Your task to perform on an android device: move an email to a new category in the gmail app Image 0: 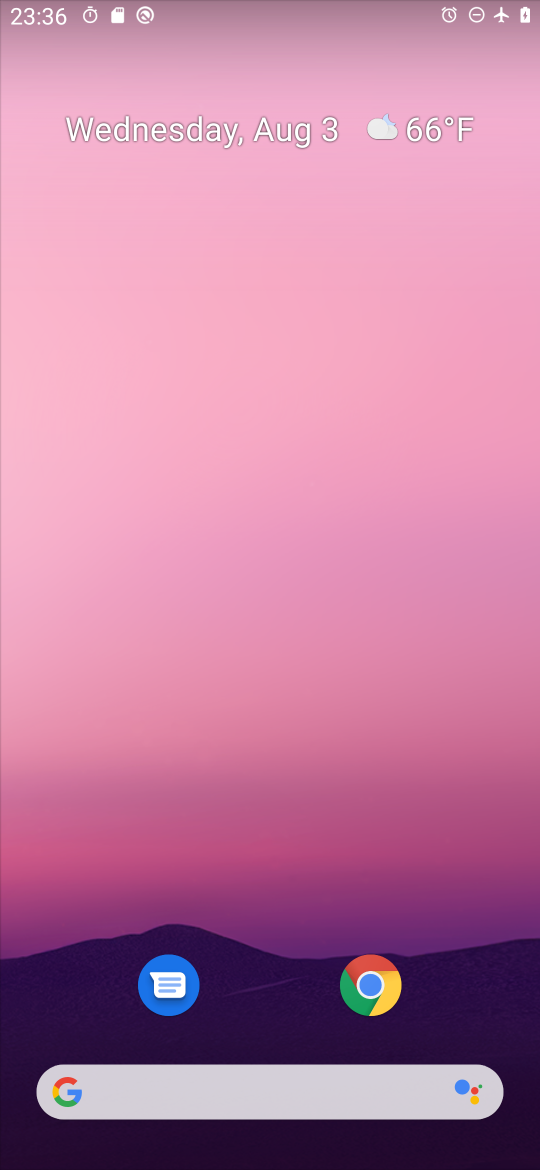
Step 0: drag from (292, 890) to (239, 206)
Your task to perform on an android device: move an email to a new category in the gmail app Image 1: 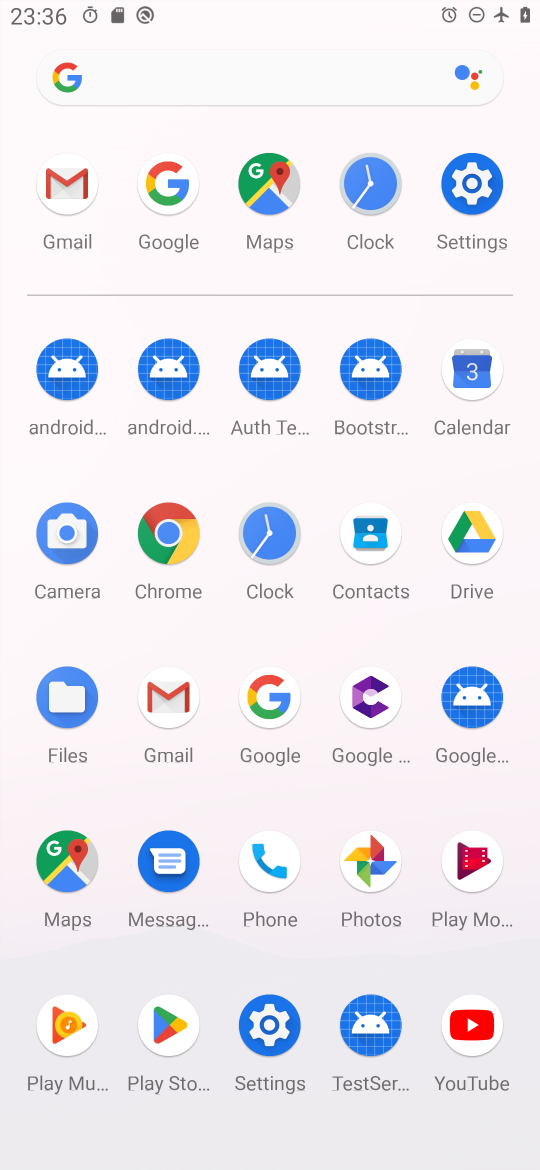
Step 1: click (80, 213)
Your task to perform on an android device: move an email to a new category in the gmail app Image 2: 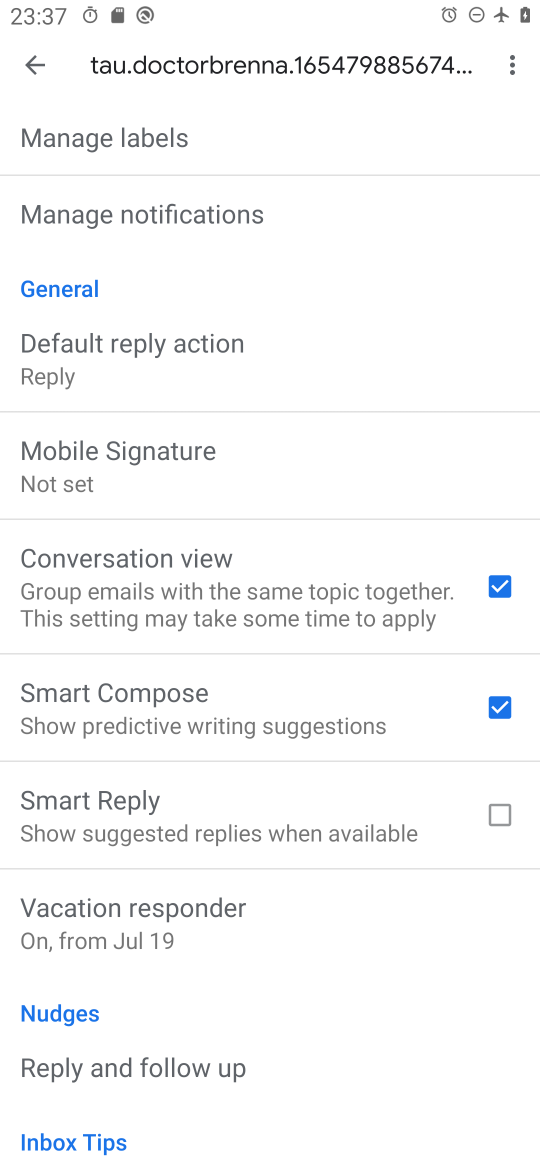
Step 2: click (23, 45)
Your task to perform on an android device: move an email to a new category in the gmail app Image 3: 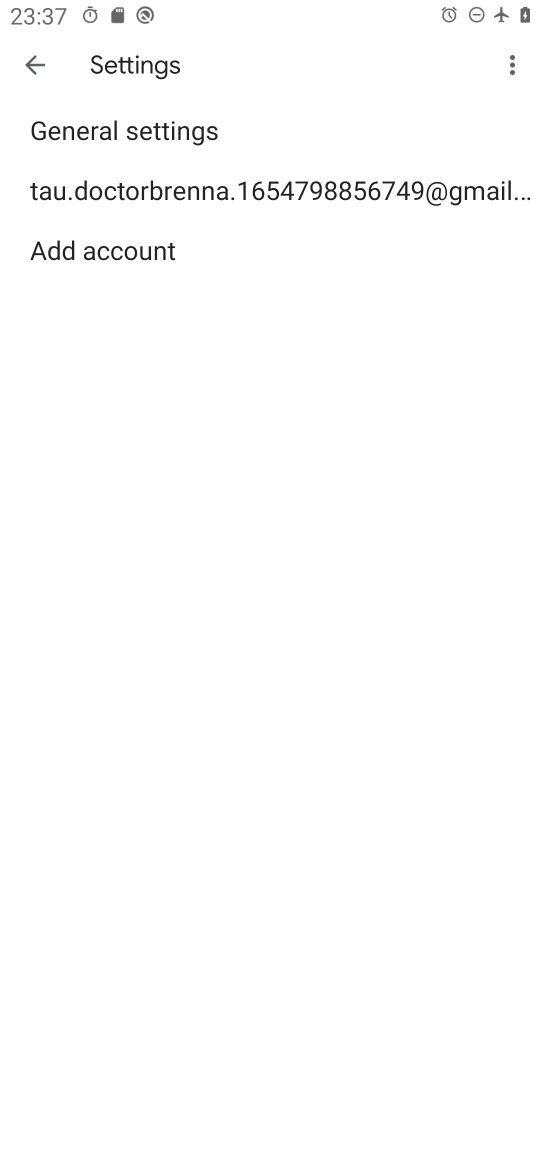
Step 3: click (46, 56)
Your task to perform on an android device: move an email to a new category in the gmail app Image 4: 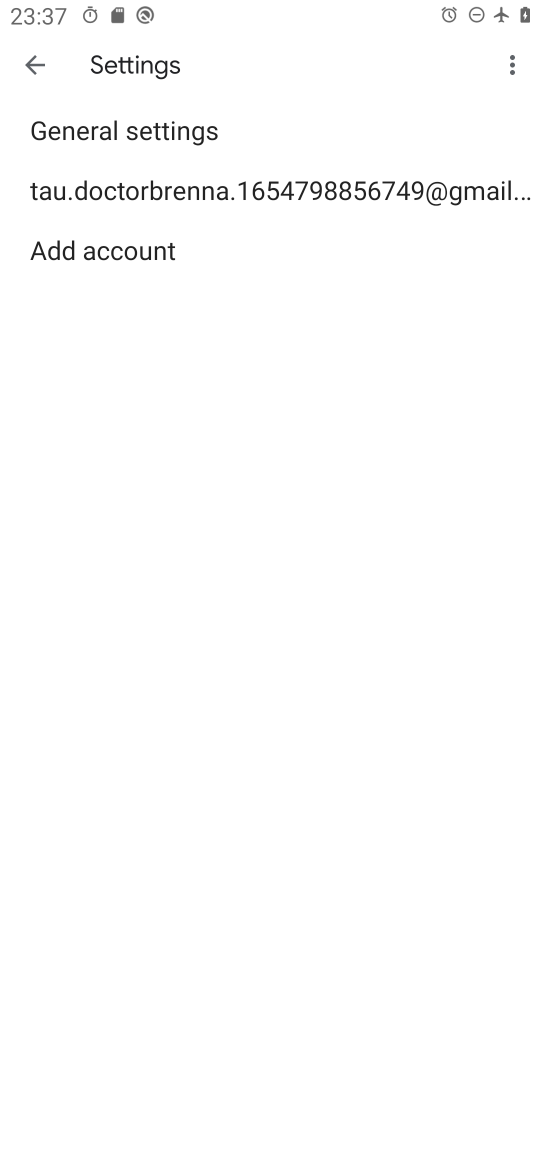
Step 4: task complete